Your task to perform on an android device: check storage Image 0: 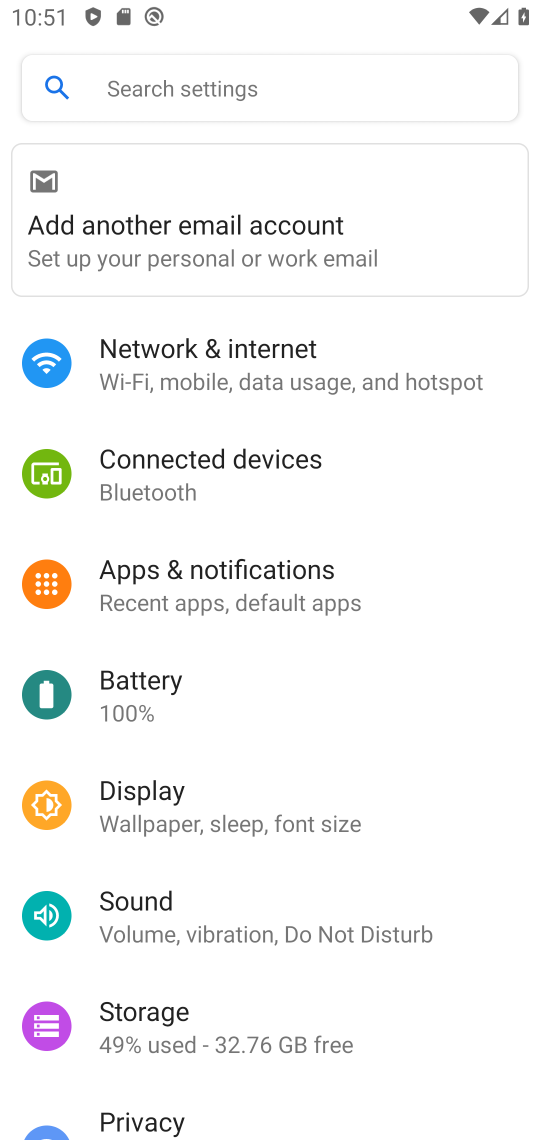
Step 0: click (165, 1020)
Your task to perform on an android device: check storage Image 1: 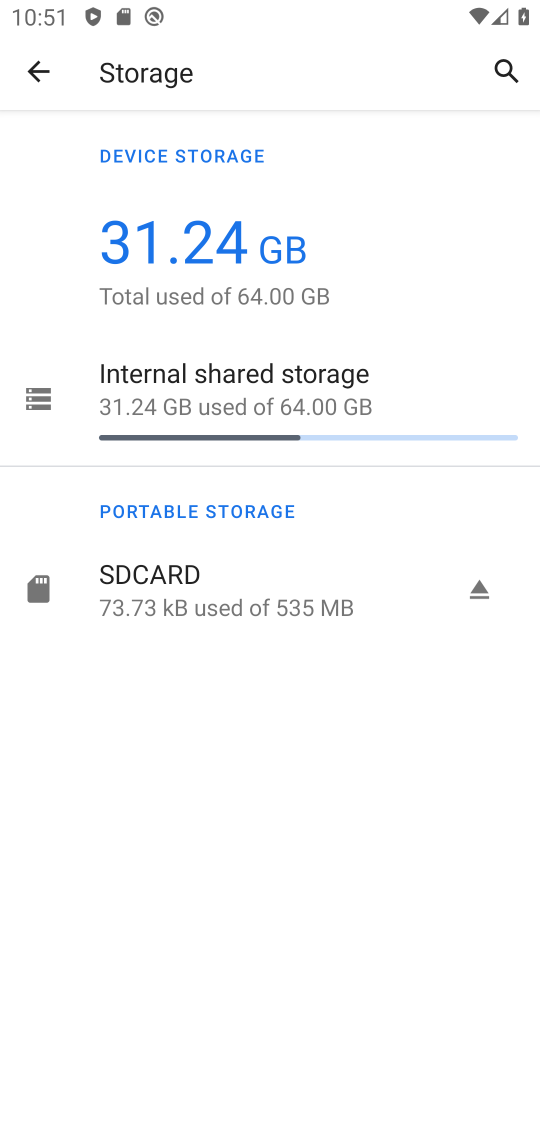
Step 1: task complete